Your task to perform on an android device: allow cookies in the chrome app Image 0: 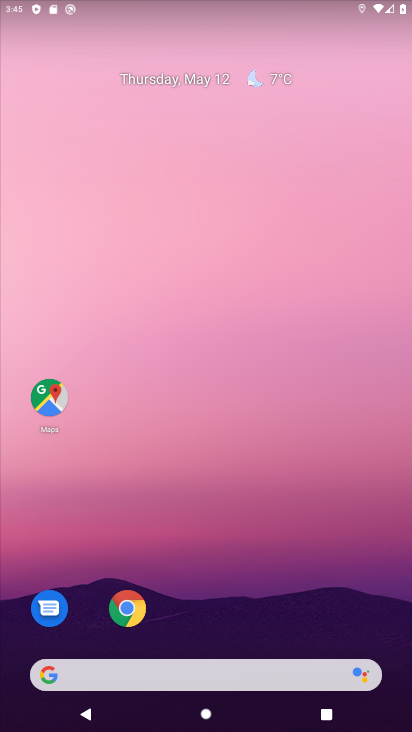
Step 0: drag from (209, 623) to (147, 97)
Your task to perform on an android device: allow cookies in the chrome app Image 1: 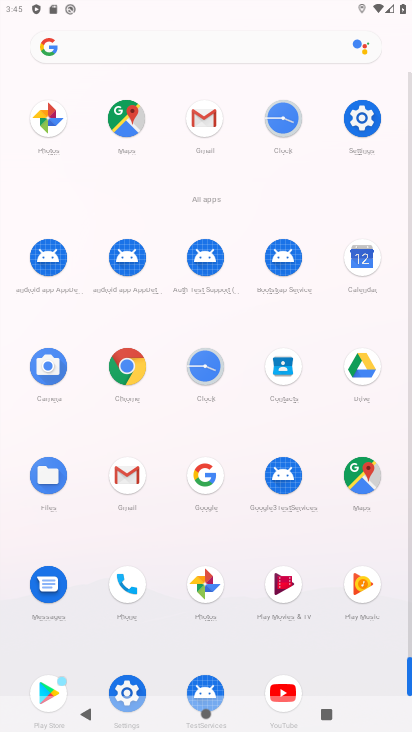
Step 1: click (129, 358)
Your task to perform on an android device: allow cookies in the chrome app Image 2: 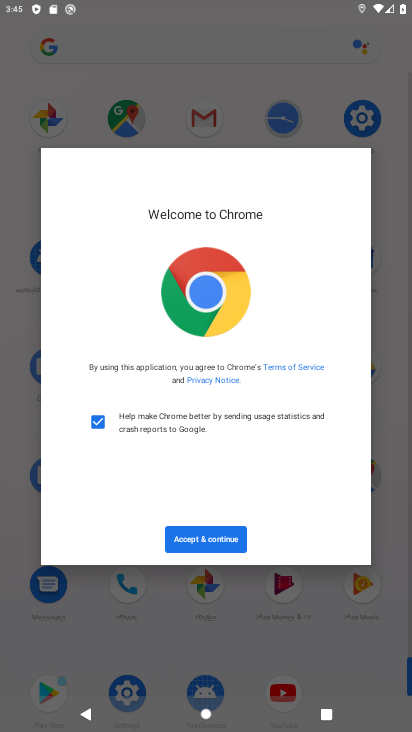
Step 2: click (222, 538)
Your task to perform on an android device: allow cookies in the chrome app Image 3: 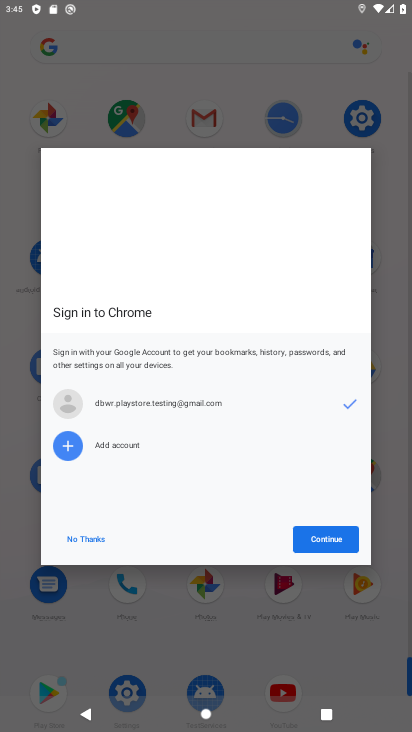
Step 3: click (352, 535)
Your task to perform on an android device: allow cookies in the chrome app Image 4: 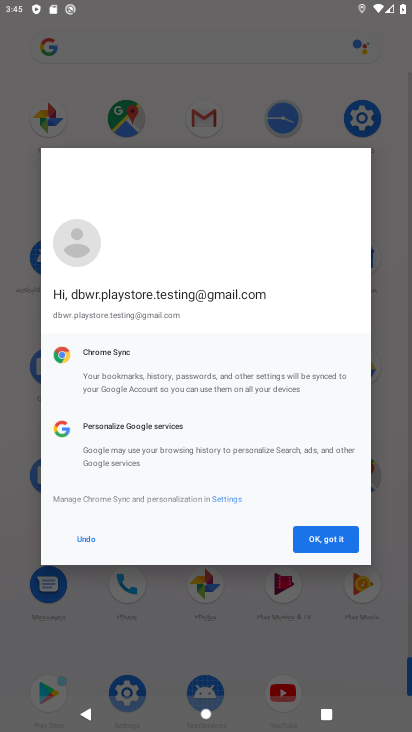
Step 4: click (352, 535)
Your task to perform on an android device: allow cookies in the chrome app Image 5: 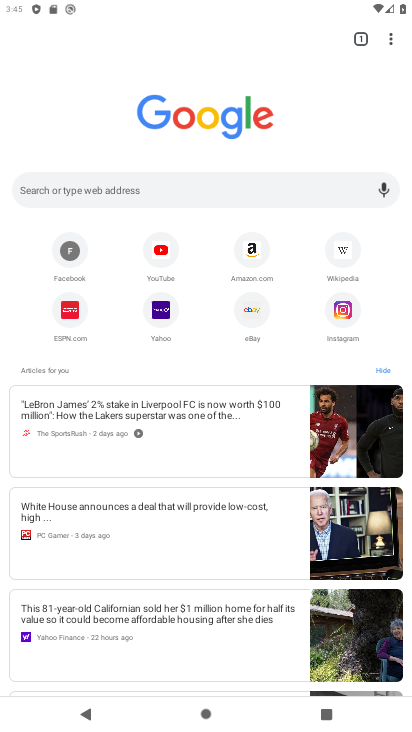
Step 5: drag from (388, 36) to (260, 328)
Your task to perform on an android device: allow cookies in the chrome app Image 6: 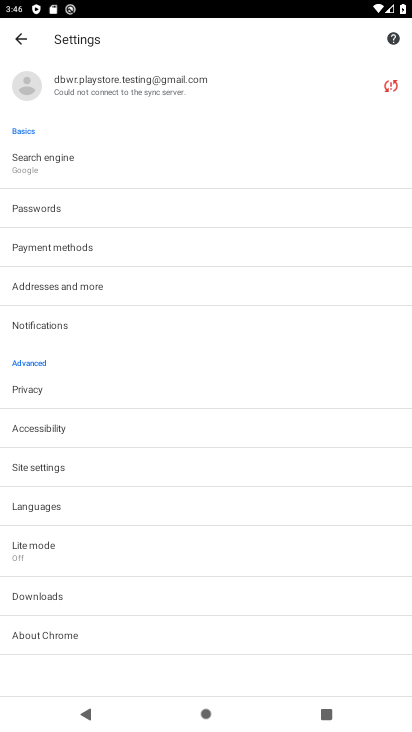
Step 6: click (13, 460)
Your task to perform on an android device: allow cookies in the chrome app Image 7: 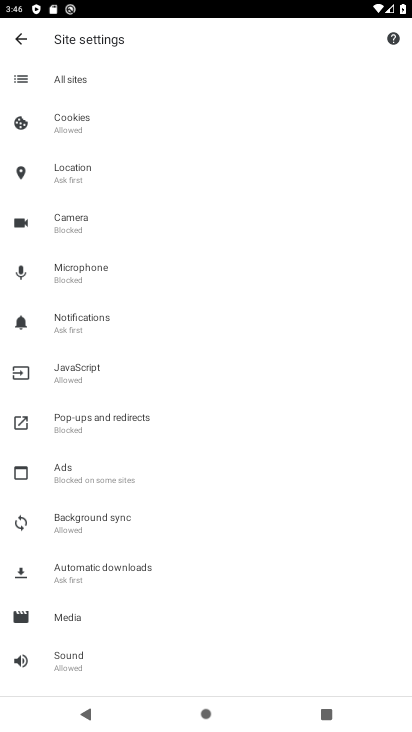
Step 7: click (66, 129)
Your task to perform on an android device: allow cookies in the chrome app Image 8: 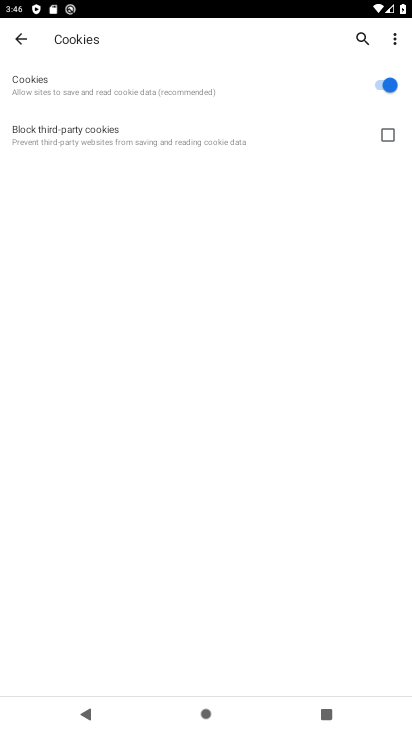
Step 8: task complete